Your task to perform on an android device: turn pop-ups on in chrome Image 0: 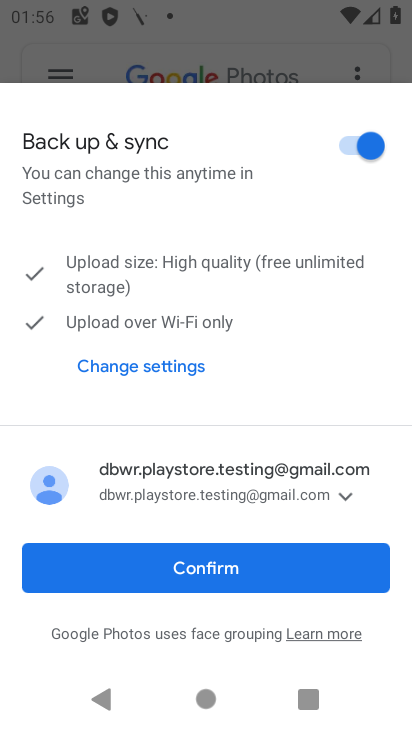
Step 0: press home button
Your task to perform on an android device: turn pop-ups on in chrome Image 1: 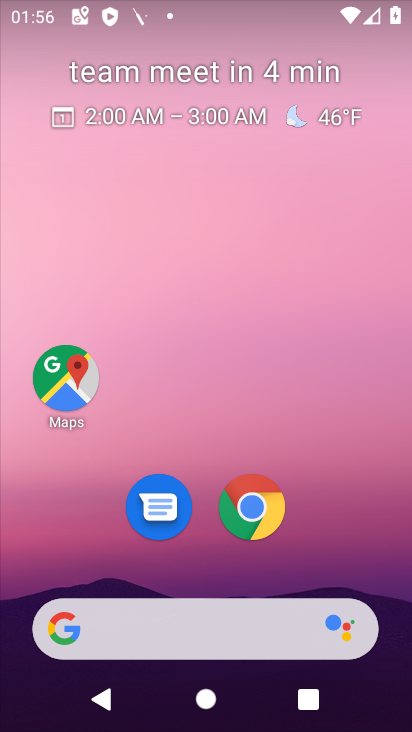
Step 1: drag from (260, 662) to (298, 228)
Your task to perform on an android device: turn pop-ups on in chrome Image 2: 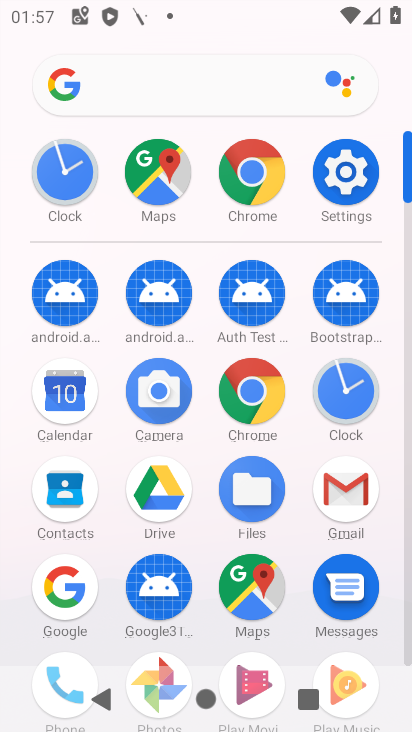
Step 2: click (260, 158)
Your task to perform on an android device: turn pop-ups on in chrome Image 3: 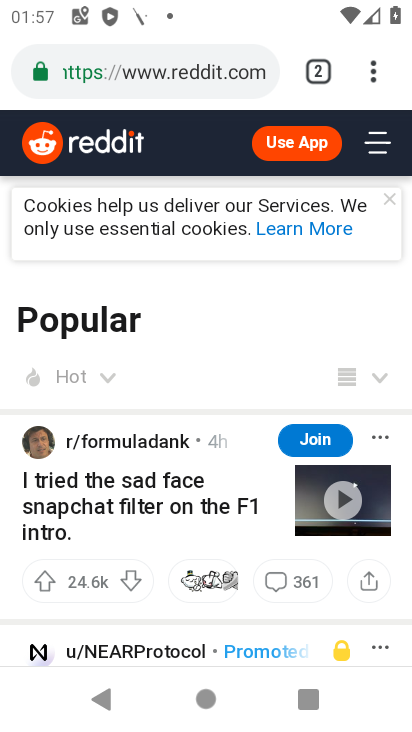
Step 3: click (376, 83)
Your task to perform on an android device: turn pop-ups on in chrome Image 4: 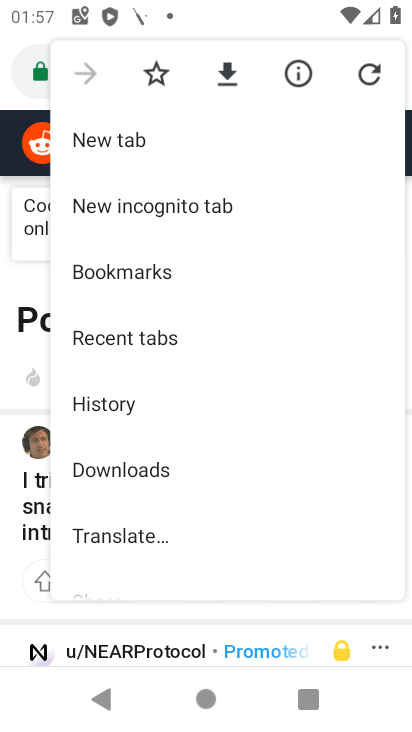
Step 4: drag from (131, 498) to (222, 334)
Your task to perform on an android device: turn pop-ups on in chrome Image 5: 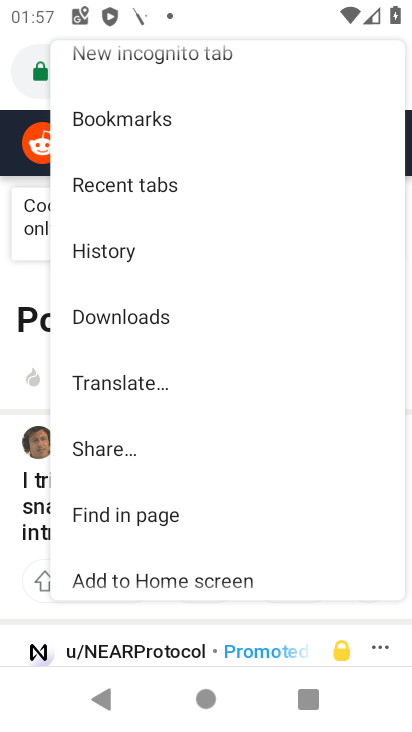
Step 5: drag from (189, 499) to (241, 317)
Your task to perform on an android device: turn pop-ups on in chrome Image 6: 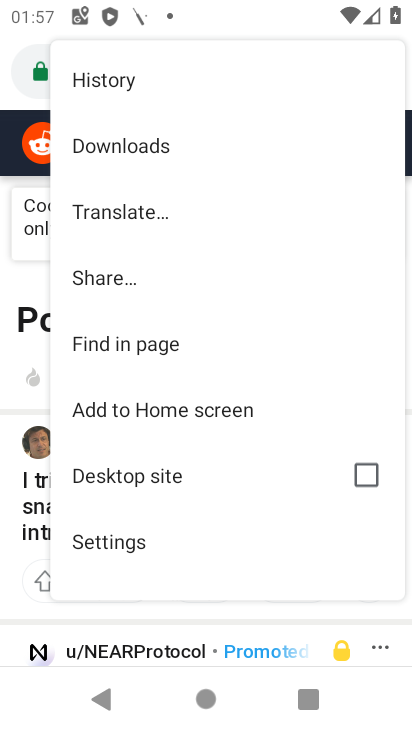
Step 6: click (123, 540)
Your task to perform on an android device: turn pop-ups on in chrome Image 7: 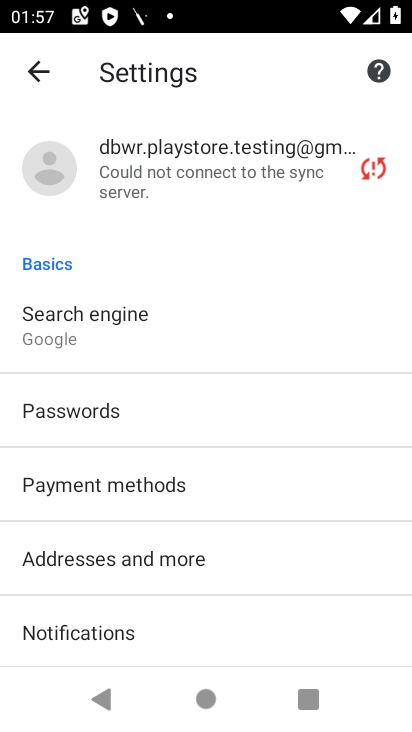
Step 7: drag from (183, 627) to (254, 341)
Your task to perform on an android device: turn pop-ups on in chrome Image 8: 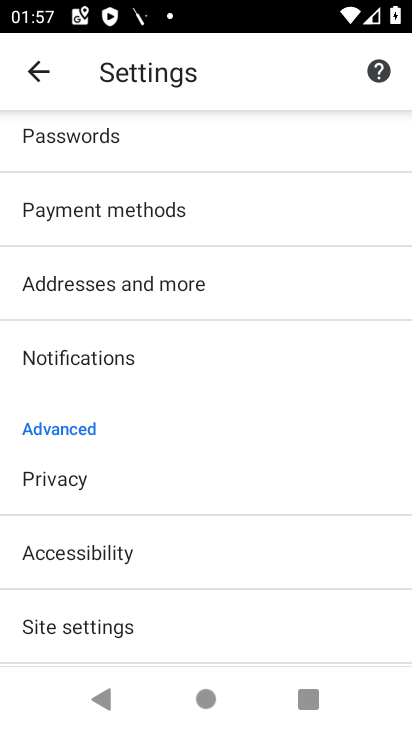
Step 8: click (102, 622)
Your task to perform on an android device: turn pop-ups on in chrome Image 9: 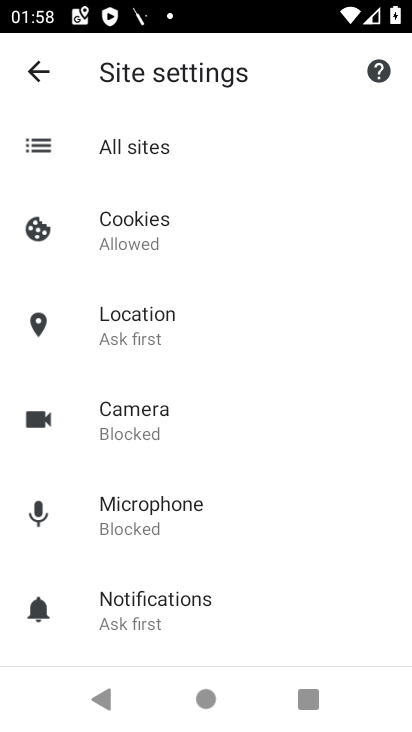
Step 9: drag from (108, 588) to (181, 270)
Your task to perform on an android device: turn pop-ups on in chrome Image 10: 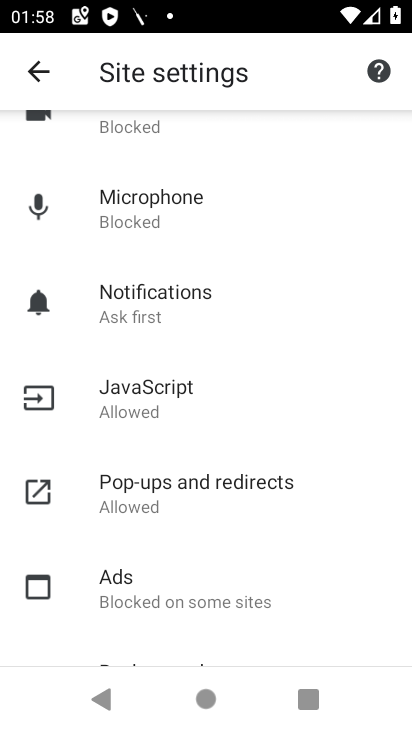
Step 10: click (138, 479)
Your task to perform on an android device: turn pop-ups on in chrome Image 11: 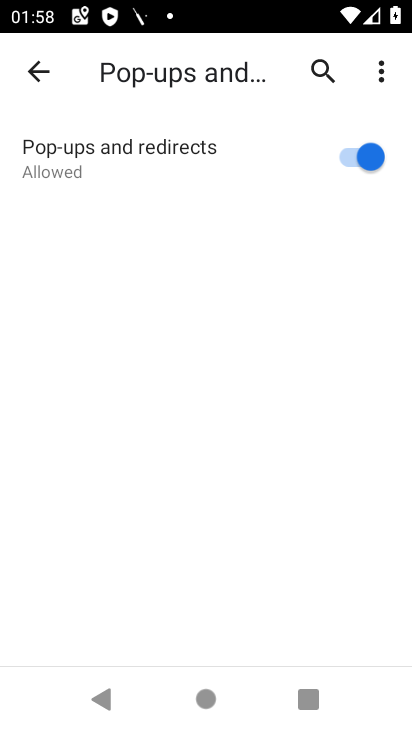
Step 11: click (361, 159)
Your task to perform on an android device: turn pop-ups on in chrome Image 12: 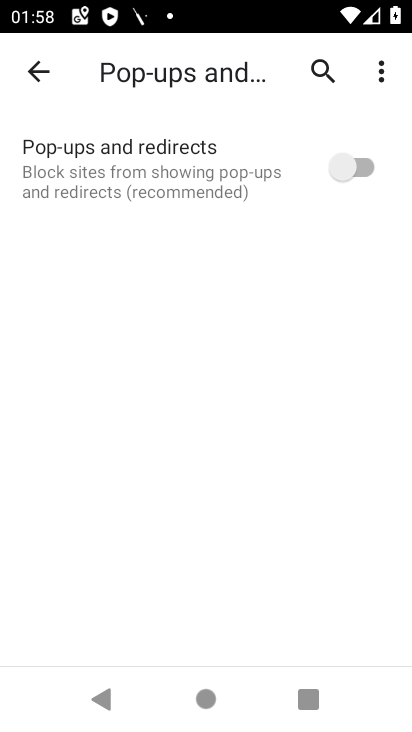
Step 12: click (361, 160)
Your task to perform on an android device: turn pop-ups on in chrome Image 13: 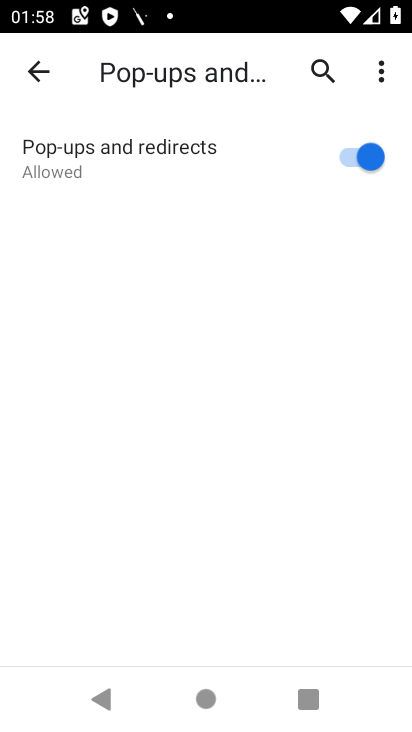
Step 13: task complete